Your task to perform on an android device: turn on javascript in the chrome app Image 0: 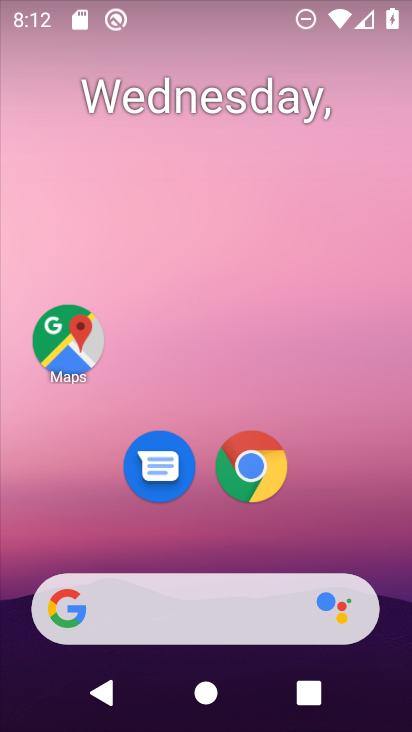
Step 0: click (270, 458)
Your task to perform on an android device: turn on javascript in the chrome app Image 1: 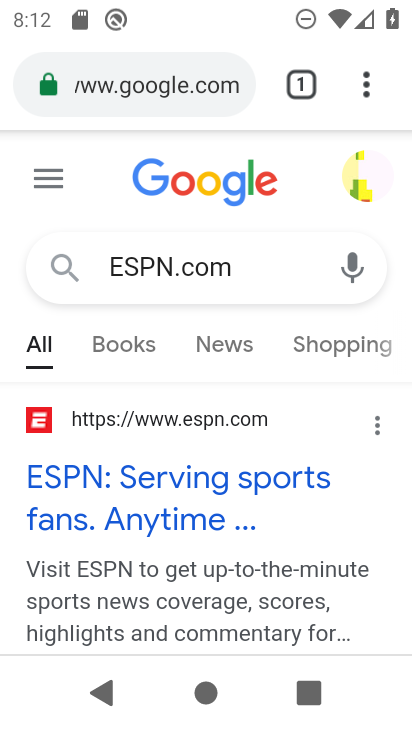
Step 1: click (373, 91)
Your task to perform on an android device: turn on javascript in the chrome app Image 2: 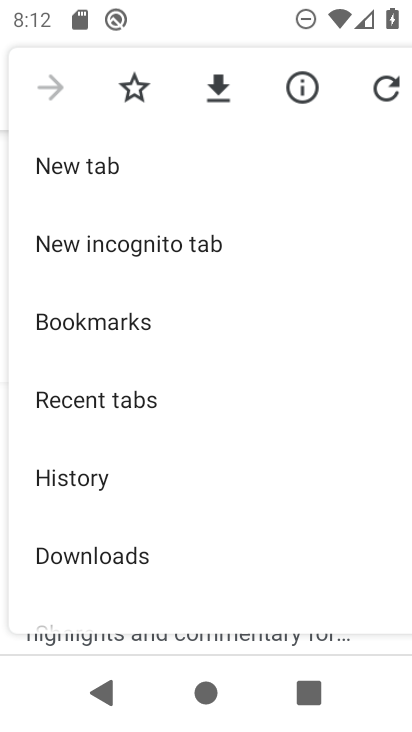
Step 2: drag from (113, 534) to (135, 256)
Your task to perform on an android device: turn on javascript in the chrome app Image 3: 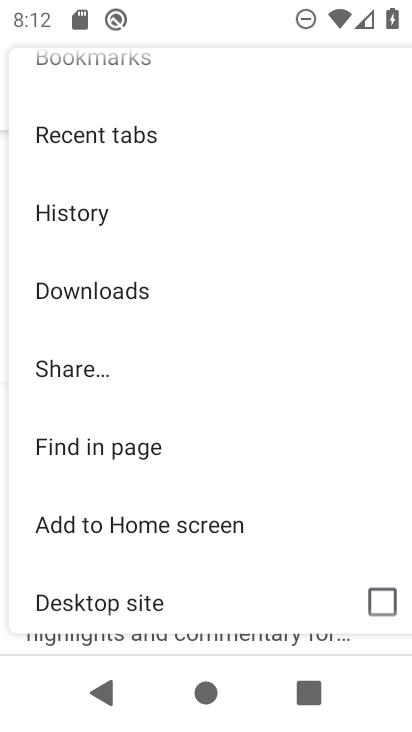
Step 3: drag from (93, 552) to (151, 241)
Your task to perform on an android device: turn on javascript in the chrome app Image 4: 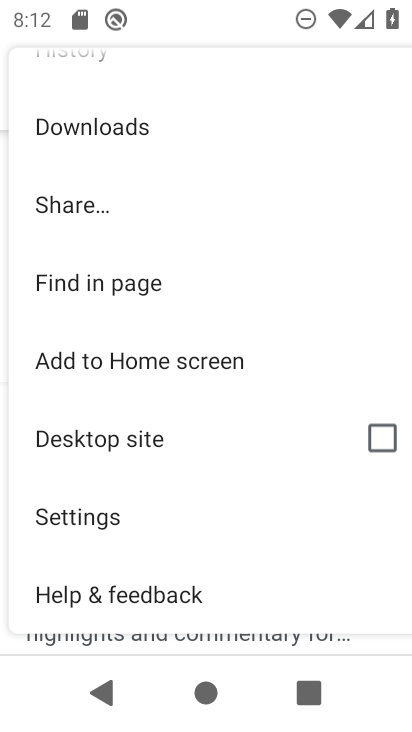
Step 4: click (101, 521)
Your task to perform on an android device: turn on javascript in the chrome app Image 5: 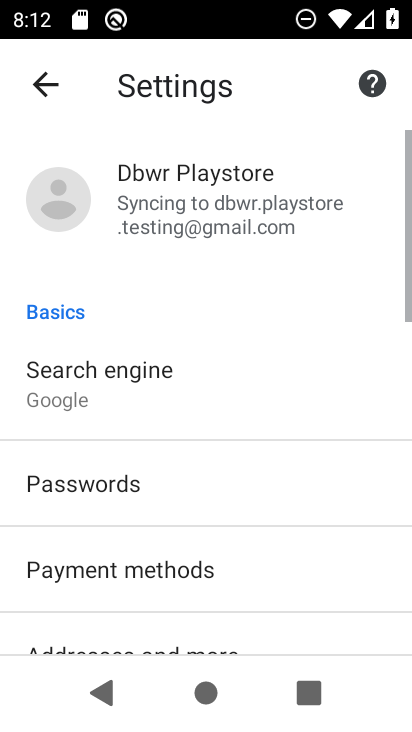
Step 5: drag from (139, 567) to (191, 294)
Your task to perform on an android device: turn on javascript in the chrome app Image 6: 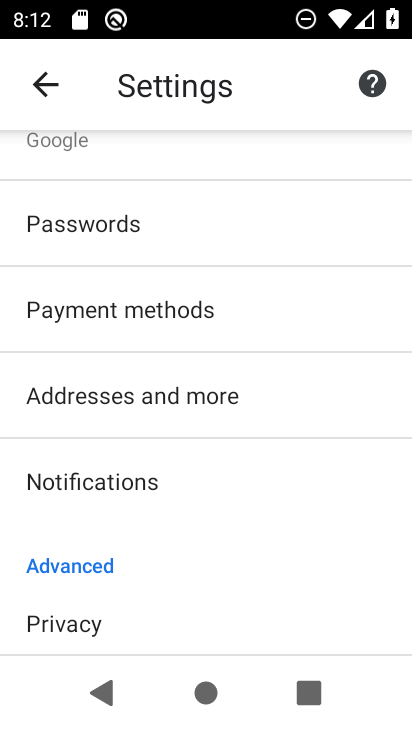
Step 6: drag from (162, 506) to (186, 284)
Your task to perform on an android device: turn on javascript in the chrome app Image 7: 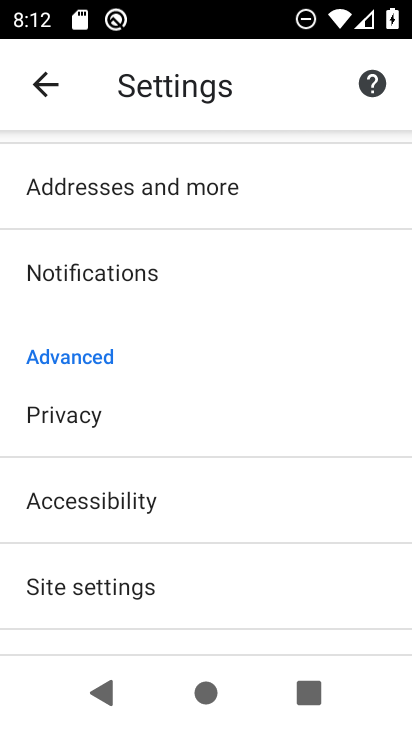
Step 7: drag from (146, 536) to (185, 296)
Your task to perform on an android device: turn on javascript in the chrome app Image 8: 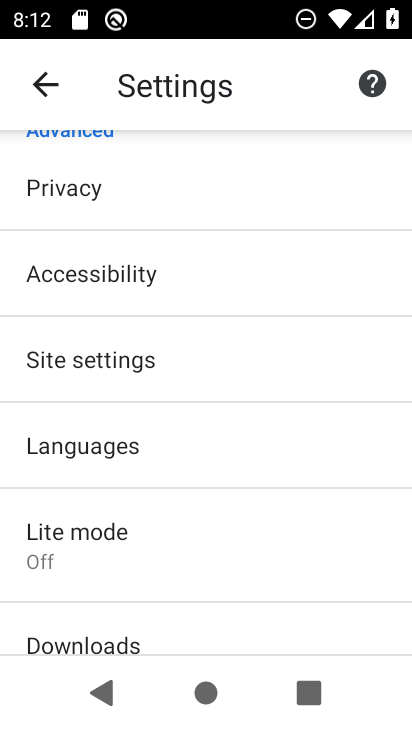
Step 8: click (104, 367)
Your task to perform on an android device: turn on javascript in the chrome app Image 9: 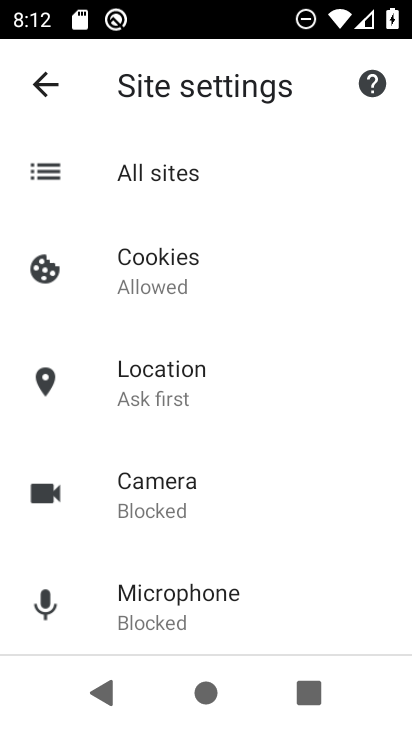
Step 9: drag from (171, 565) to (210, 335)
Your task to perform on an android device: turn on javascript in the chrome app Image 10: 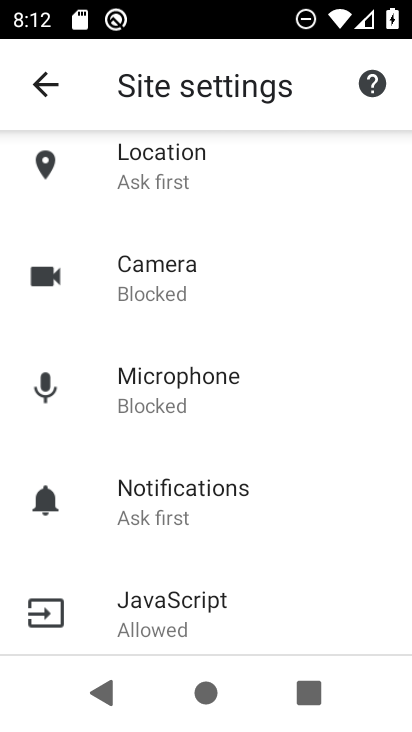
Step 10: drag from (182, 556) to (207, 409)
Your task to perform on an android device: turn on javascript in the chrome app Image 11: 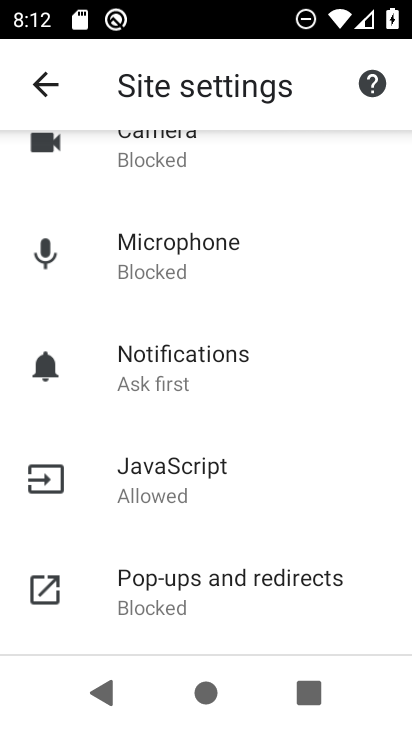
Step 11: click (168, 485)
Your task to perform on an android device: turn on javascript in the chrome app Image 12: 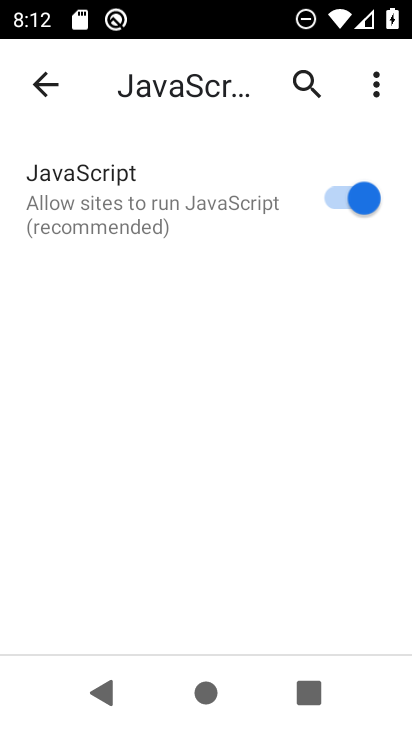
Step 12: task complete